Your task to perform on an android device: Go to notification settings Image 0: 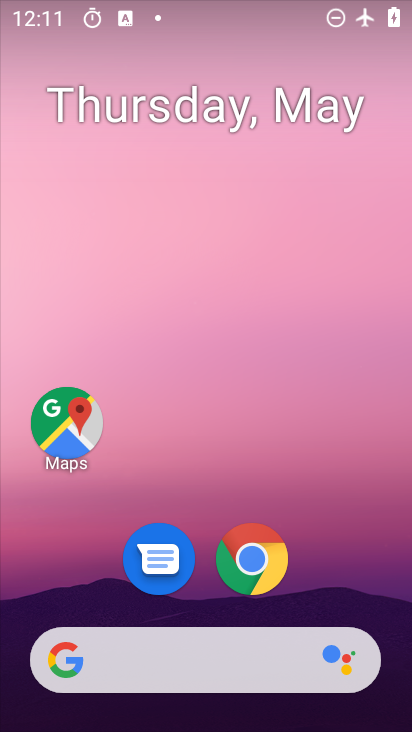
Step 0: drag from (227, 691) to (250, 85)
Your task to perform on an android device: Go to notification settings Image 1: 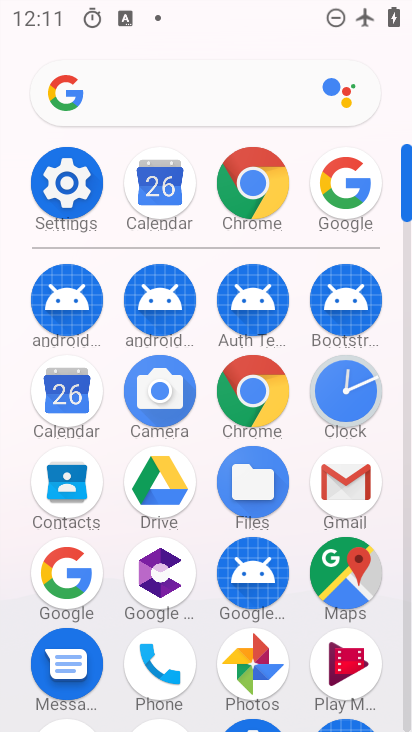
Step 1: click (63, 206)
Your task to perform on an android device: Go to notification settings Image 2: 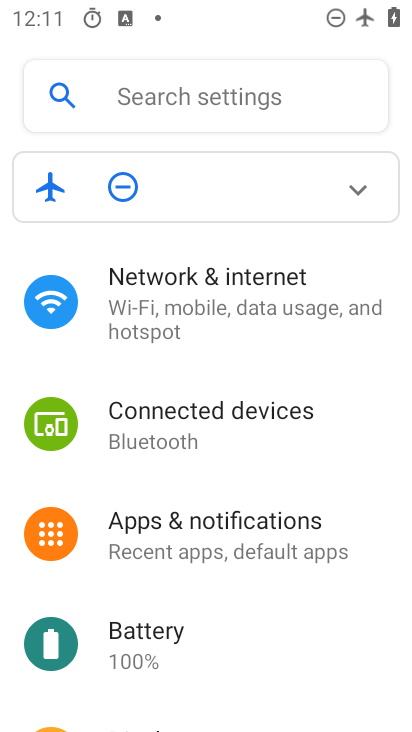
Step 2: click (229, 547)
Your task to perform on an android device: Go to notification settings Image 3: 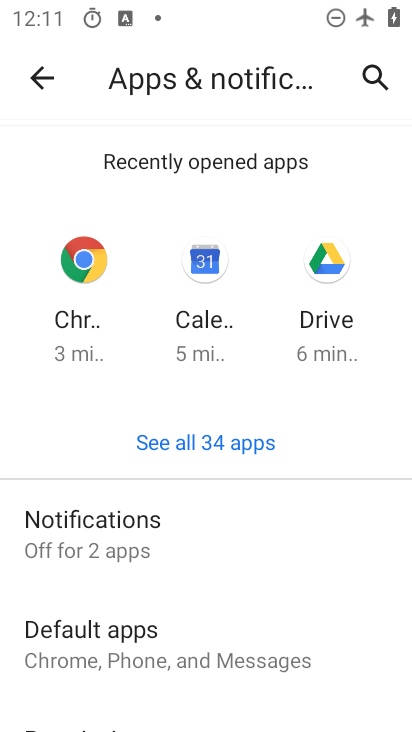
Step 3: click (181, 535)
Your task to perform on an android device: Go to notification settings Image 4: 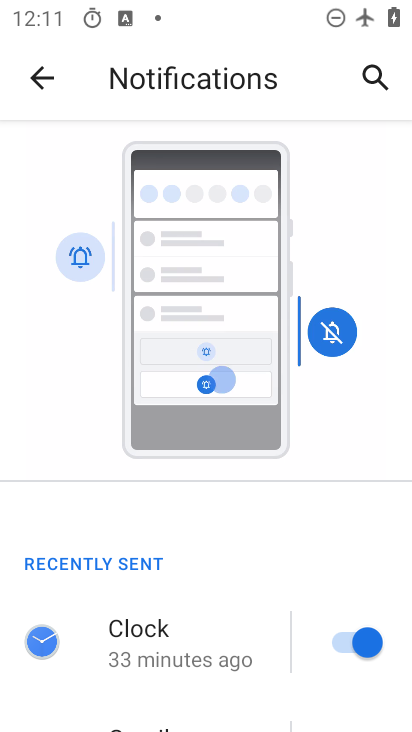
Step 4: task complete